Your task to perform on an android device: turn off priority inbox in the gmail app Image 0: 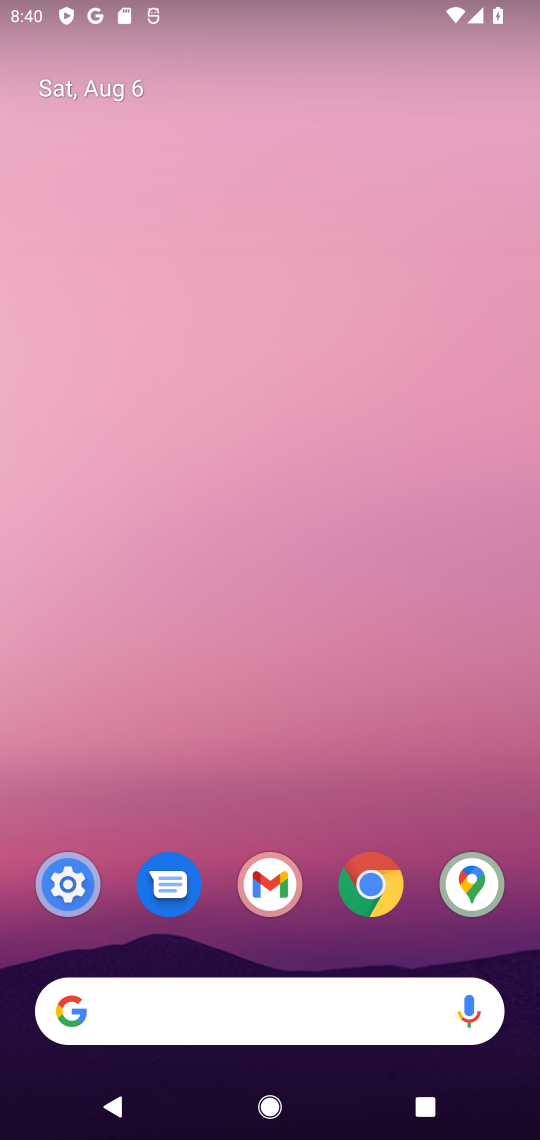
Step 0: drag from (435, 949) to (388, 154)
Your task to perform on an android device: turn off priority inbox in the gmail app Image 1: 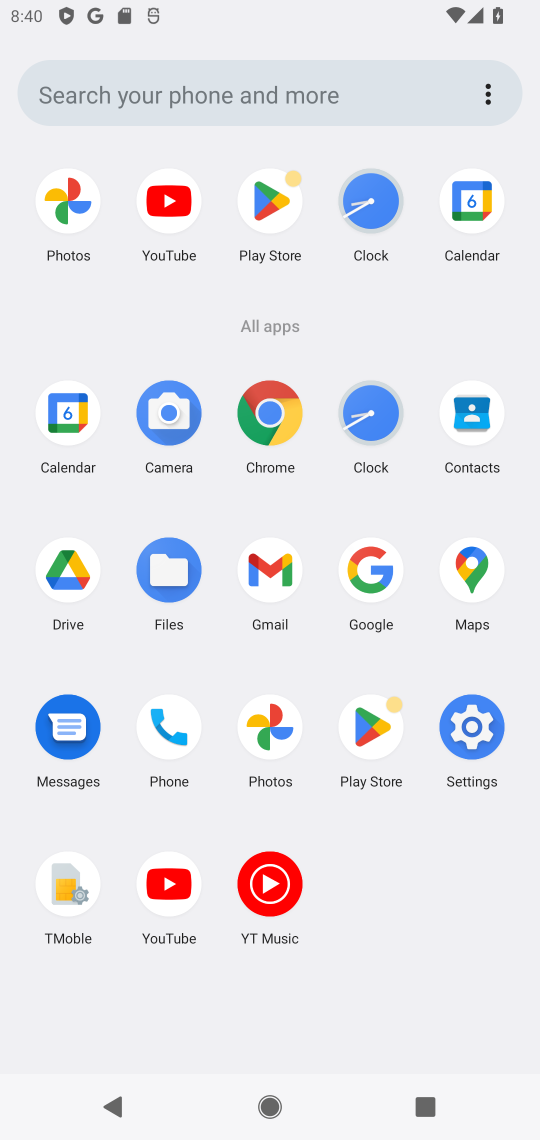
Step 1: click (266, 572)
Your task to perform on an android device: turn off priority inbox in the gmail app Image 2: 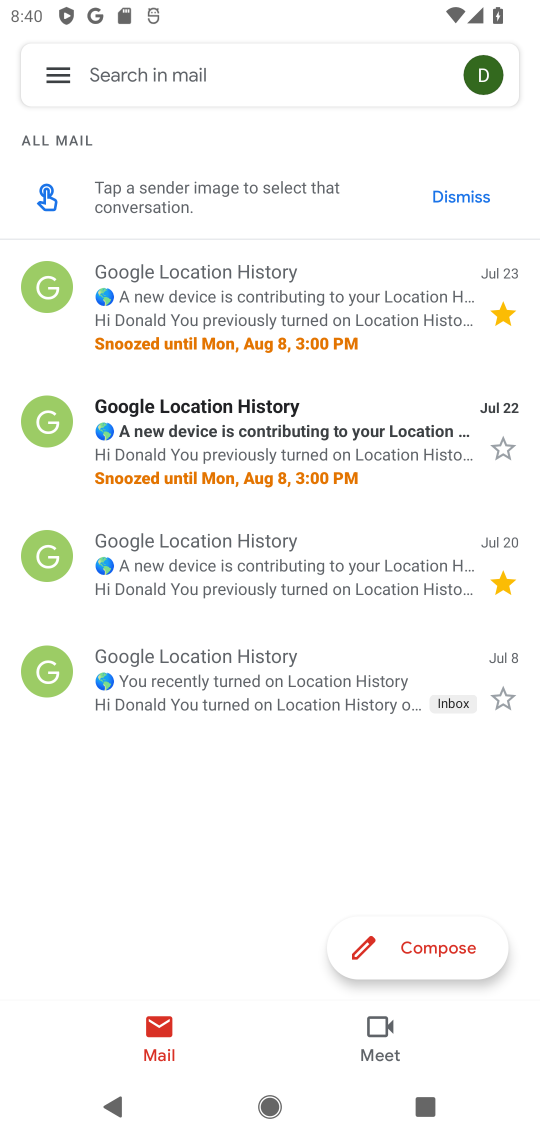
Step 2: click (55, 77)
Your task to perform on an android device: turn off priority inbox in the gmail app Image 3: 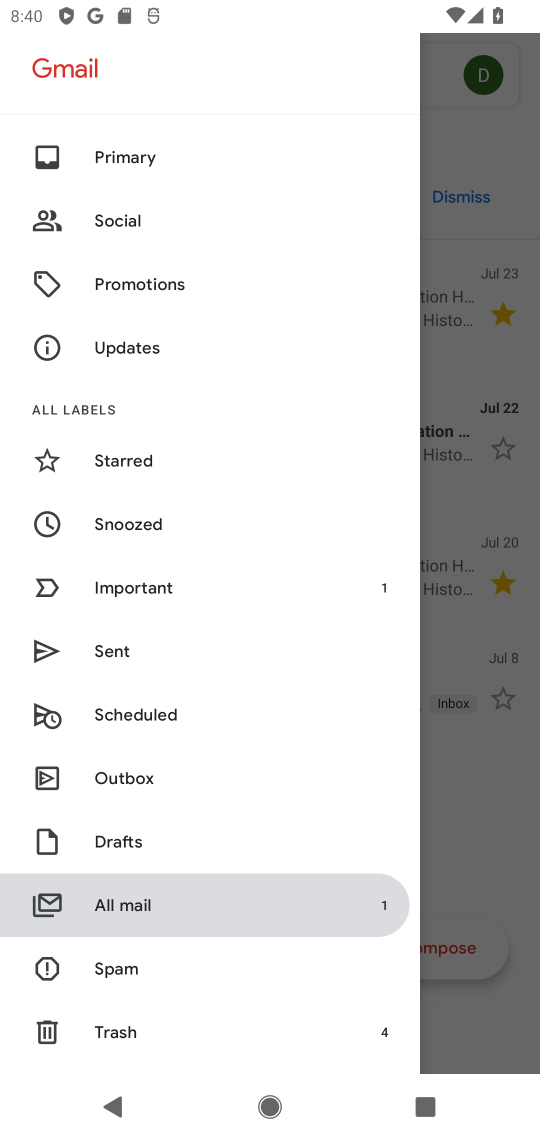
Step 3: drag from (253, 985) to (253, 389)
Your task to perform on an android device: turn off priority inbox in the gmail app Image 4: 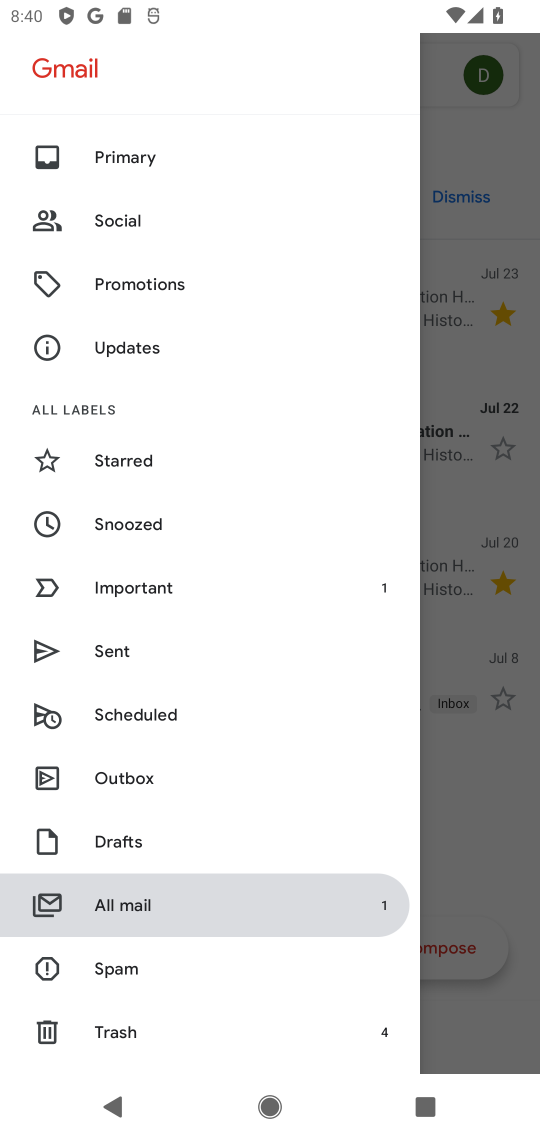
Step 4: drag from (282, 978) to (266, 321)
Your task to perform on an android device: turn off priority inbox in the gmail app Image 5: 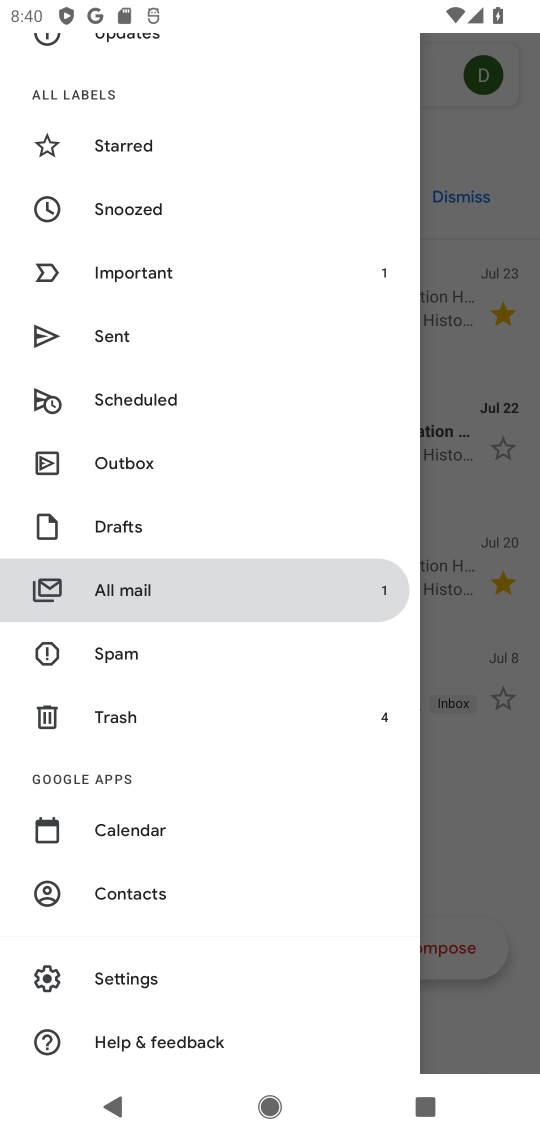
Step 5: click (116, 981)
Your task to perform on an android device: turn off priority inbox in the gmail app Image 6: 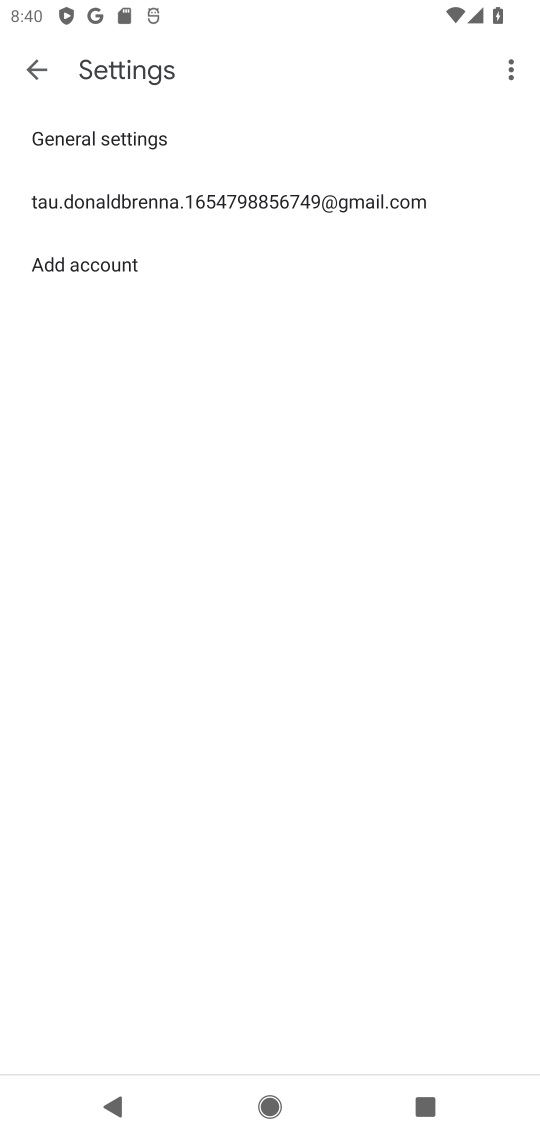
Step 6: click (227, 198)
Your task to perform on an android device: turn off priority inbox in the gmail app Image 7: 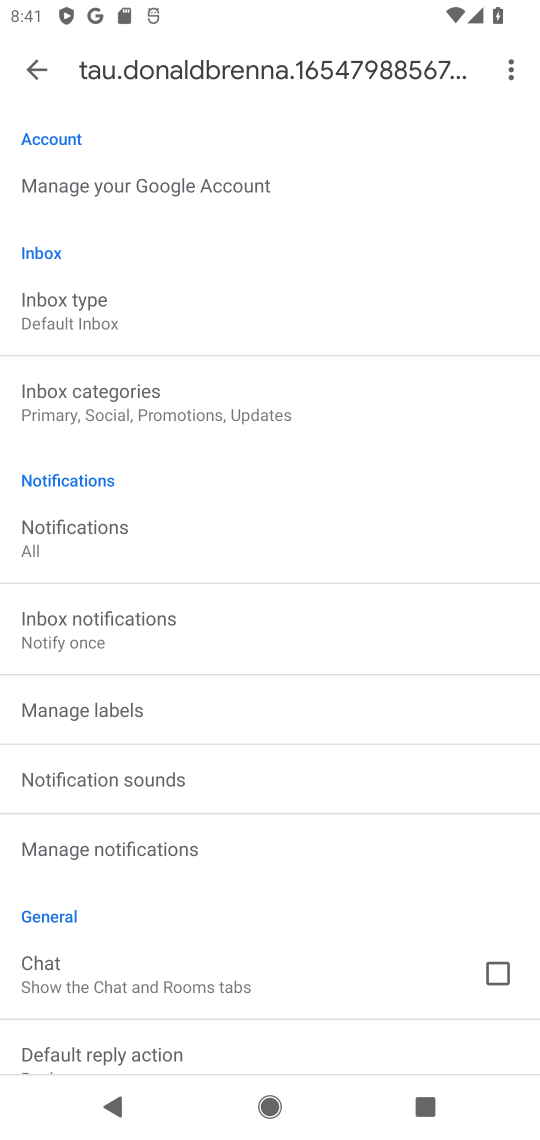
Step 7: click (76, 307)
Your task to perform on an android device: turn off priority inbox in the gmail app Image 8: 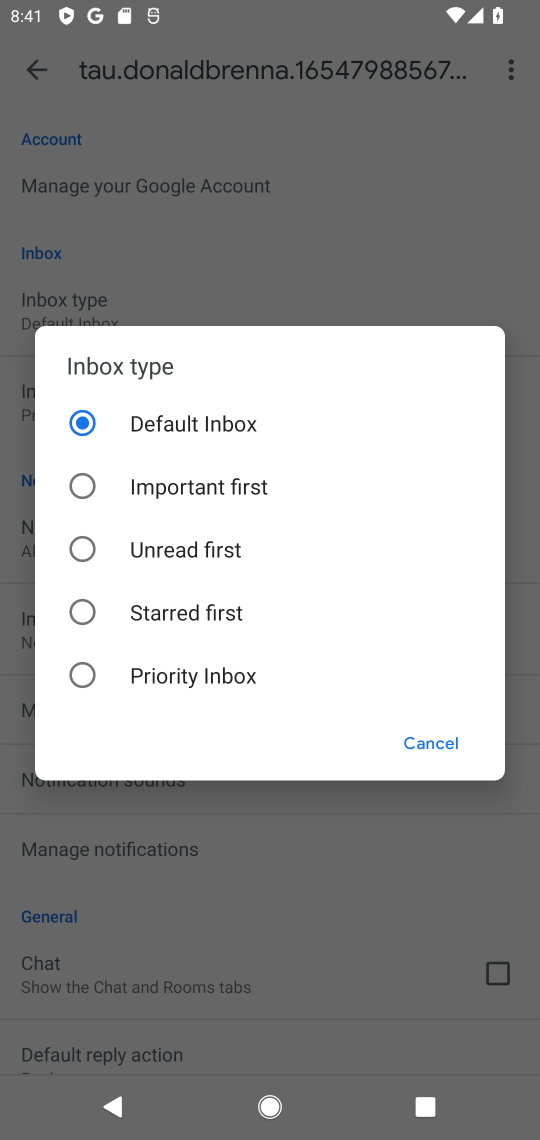
Step 8: task complete